Your task to perform on an android device: Go to sound settings Image 0: 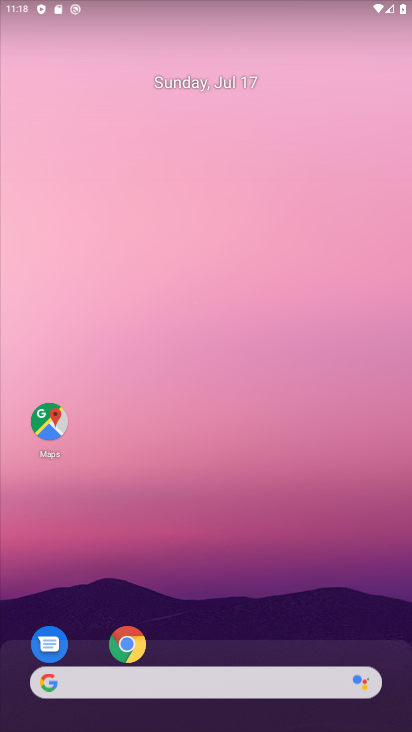
Step 0: drag from (400, 695) to (375, 32)
Your task to perform on an android device: Go to sound settings Image 1: 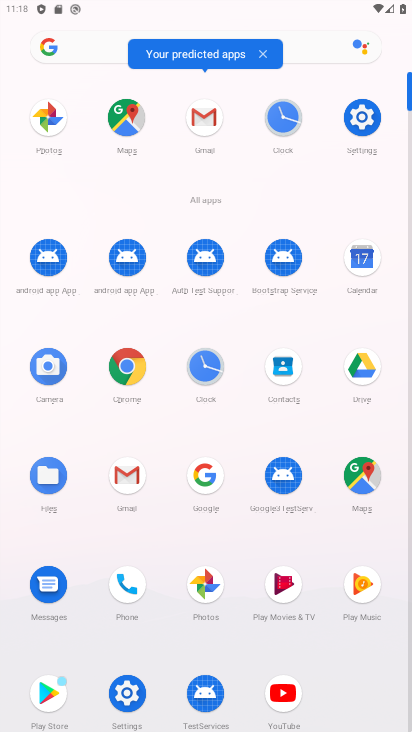
Step 1: click (361, 114)
Your task to perform on an android device: Go to sound settings Image 2: 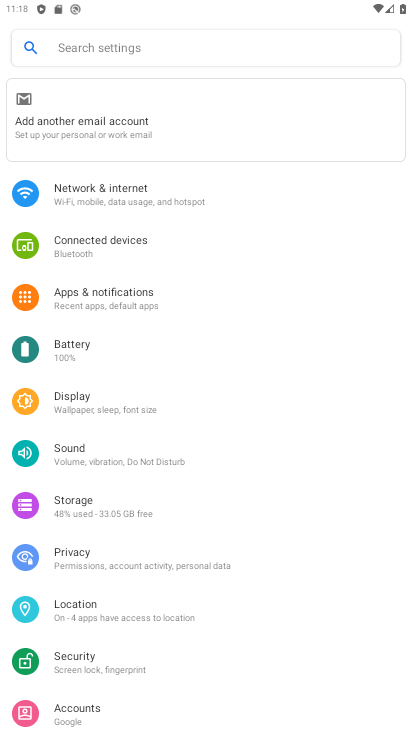
Step 2: click (102, 449)
Your task to perform on an android device: Go to sound settings Image 3: 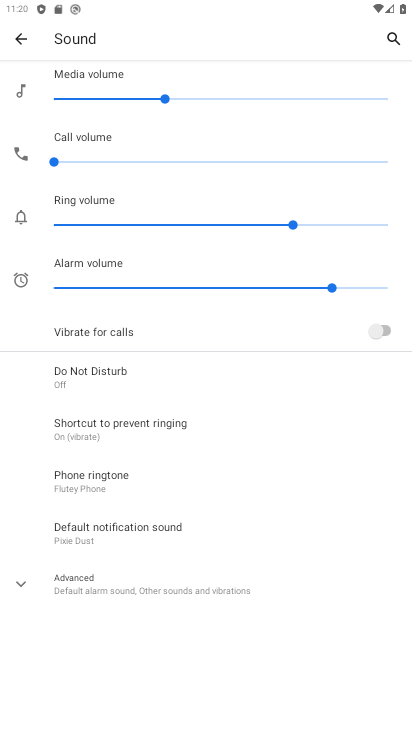
Step 3: task complete